Your task to perform on an android device: see creations saved in the google photos Image 0: 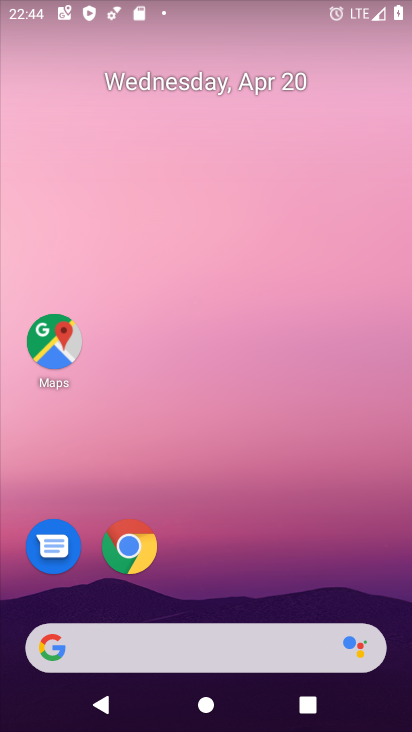
Step 0: press home button
Your task to perform on an android device: see creations saved in the google photos Image 1: 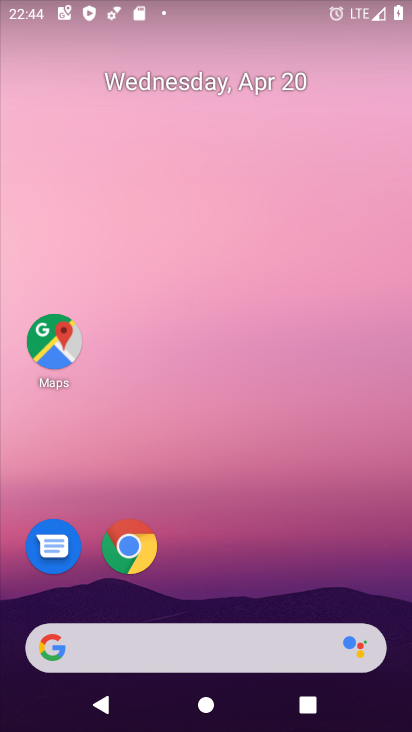
Step 1: drag from (217, 369) to (145, 80)
Your task to perform on an android device: see creations saved in the google photos Image 2: 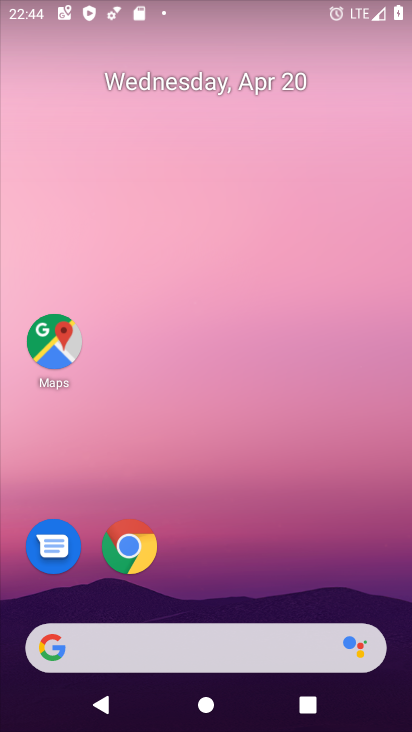
Step 2: drag from (269, 600) to (108, 51)
Your task to perform on an android device: see creations saved in the google photos Image 3: 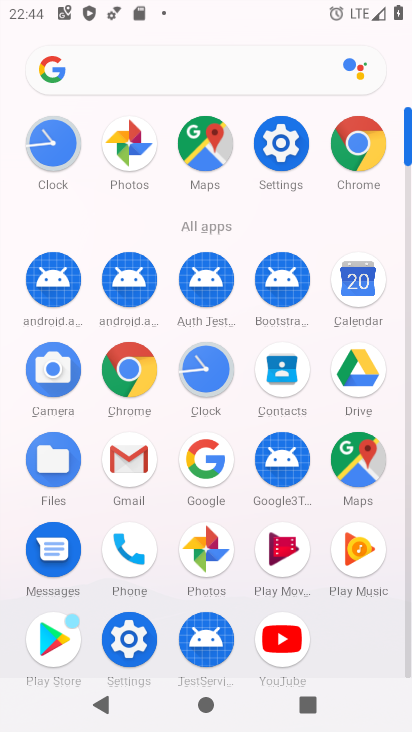
Step 3: click (127, 182)
Your task to perform on an android device: see creations saved in the google photos Image 4: 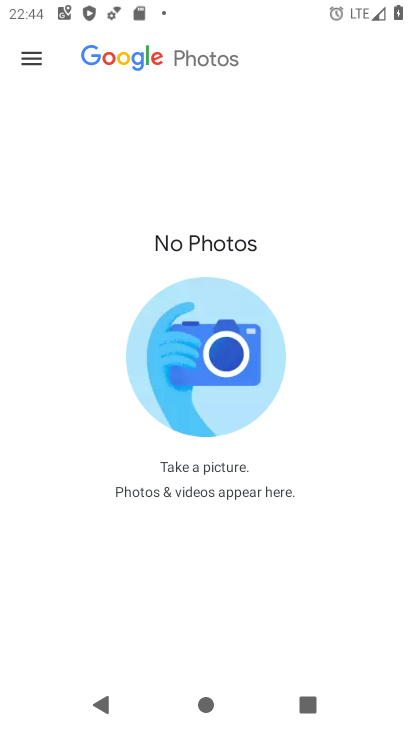
Step 4: click (114, 61)
Your task to perform on an android device: see creations saved in the google photos Image 5: 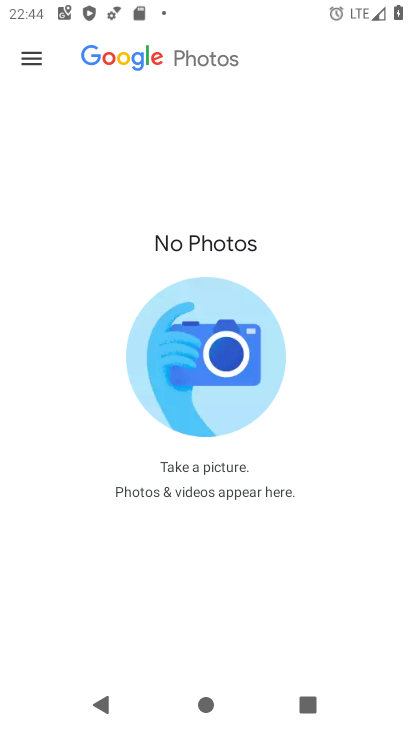
Step 5: click (223, 54)
Your task to perform on an android device: see creations saved in the google photos Image 6: 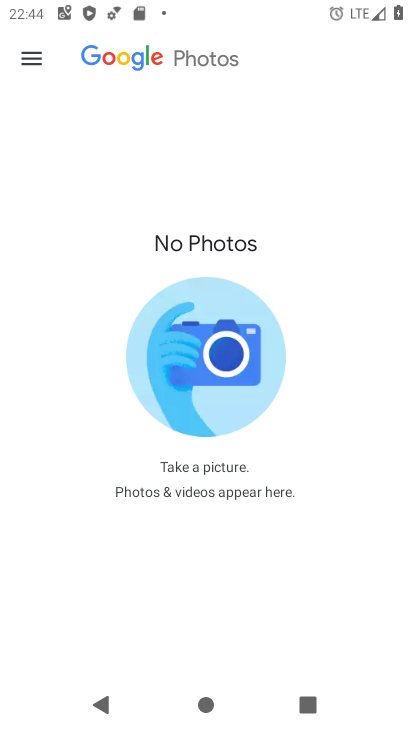
Step 6: click (223, 54)
Your task to perform on an android device: see creations saved in the google photos Image 7: 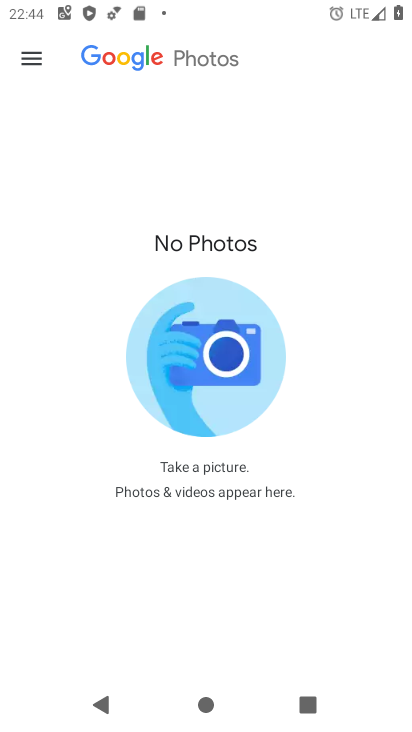
Step 7: click (242, 381)
Your task to perform on an android device: see creations saved in the google photos Image 8: 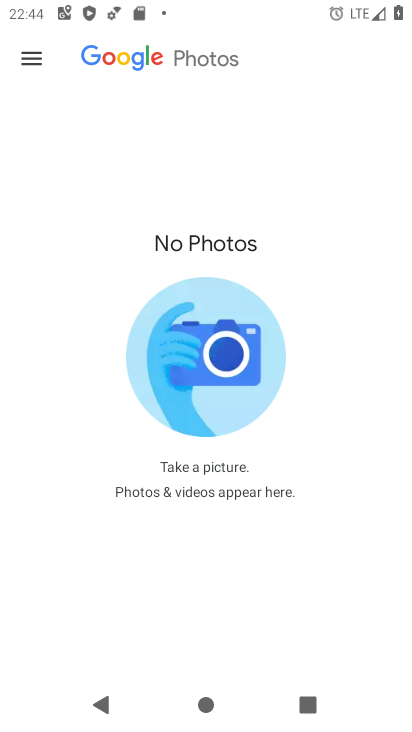
Step 8: press back button
Your task to perform on an android device: see creations saved in the google photos Image 9: 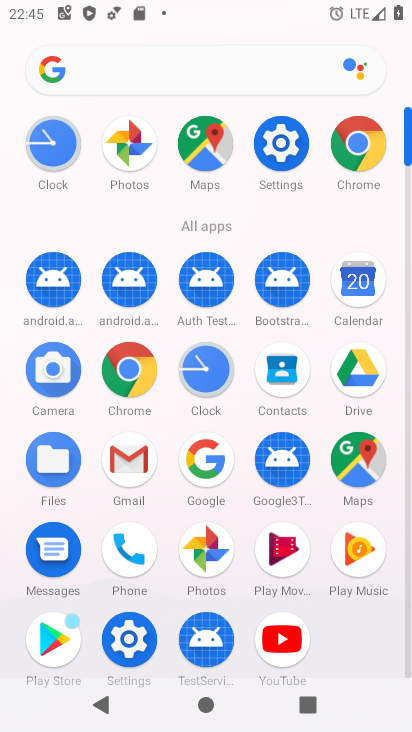
Step 9: click (211, 555)
Your task to perform on an android device: see creations saved in the google photos Image 10: 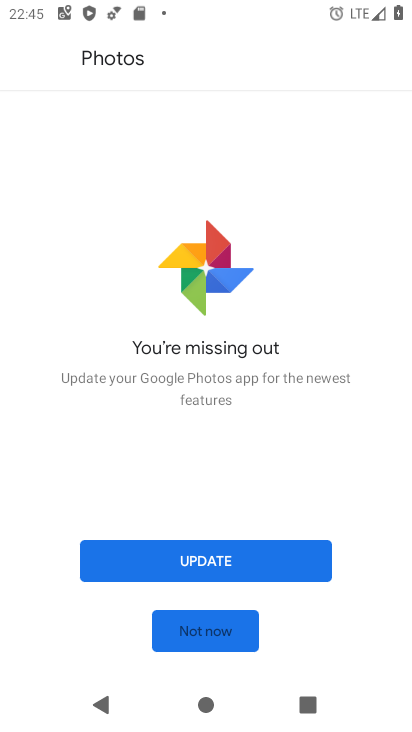
Step 10: click (200, 624)
Your task to perform on an android device: see creations saved in the google photos Image 11: 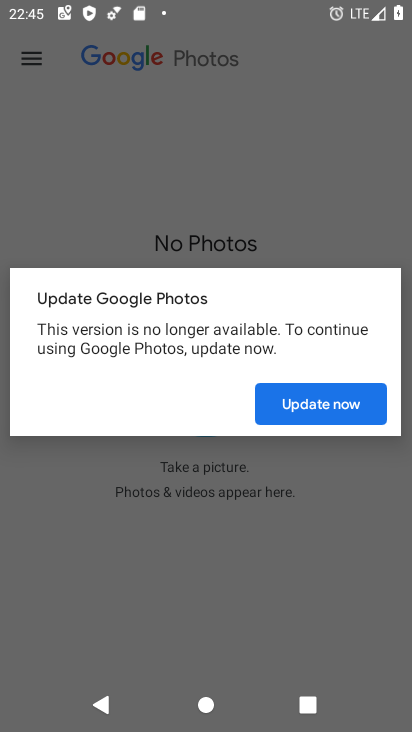
Step 11: click (300, 405)
Your task to perform on an android device: see creations saved in the google photos Image 12: 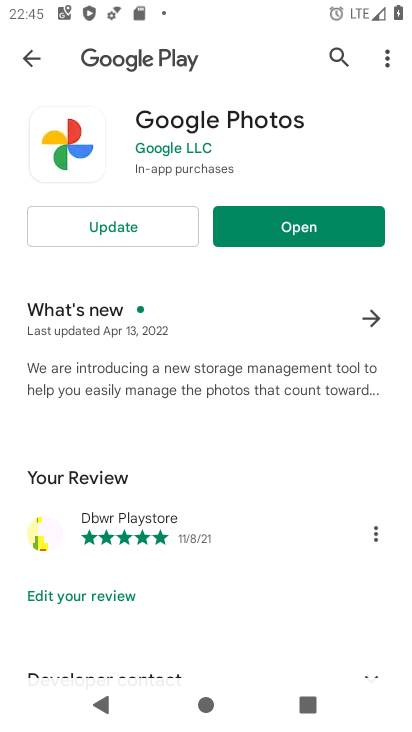
Step 12: click (119, 230)
Your task to perform on an android device: see creations saved in the google photos Image 13: 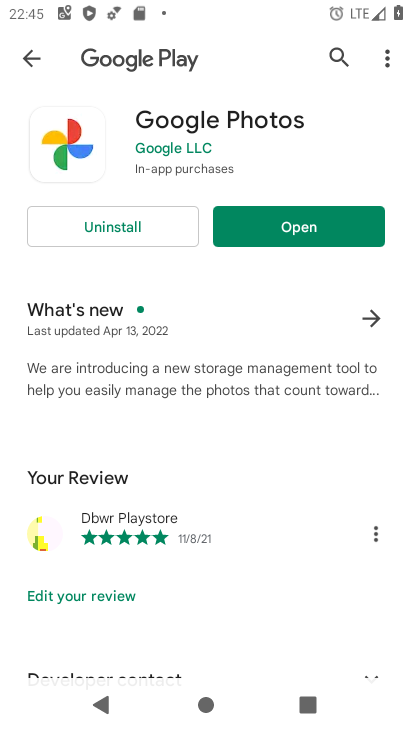
Step 13: click (298, 226)
Your task to perform on an android device: see creations saved in the google photos Image 14: 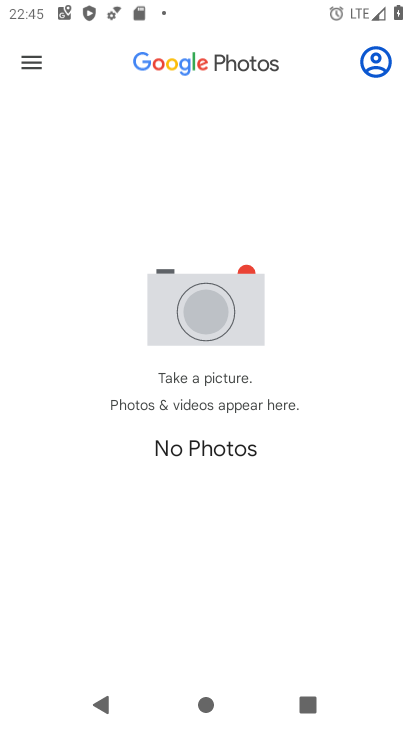
Step 14: click (24, 60)
Your task to perform on an android device: see creations saved in the google photos Image 15: 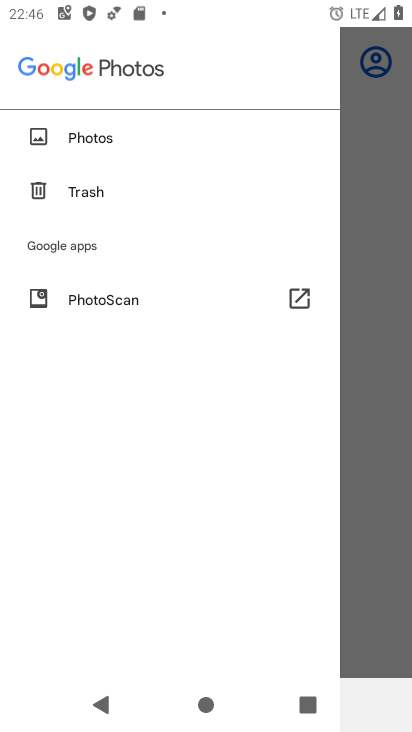
Step 15: click (395, 221)
Your task to perform on an android device: see creations saved in the google photos Image 16: 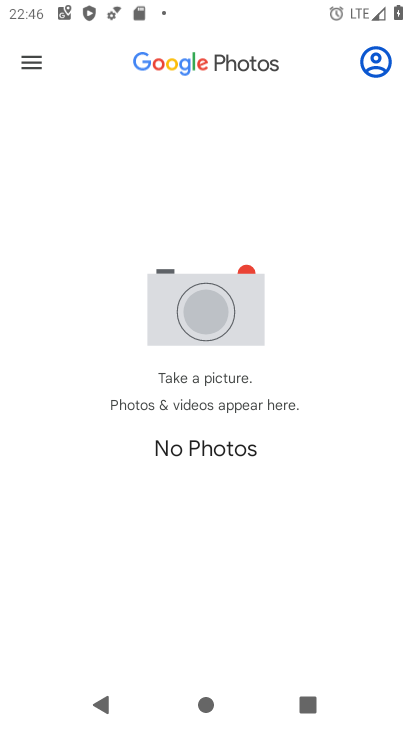
Step 16: task complete